Your task to perform on an android device: What's on my calendar tomorrow? Image 0: 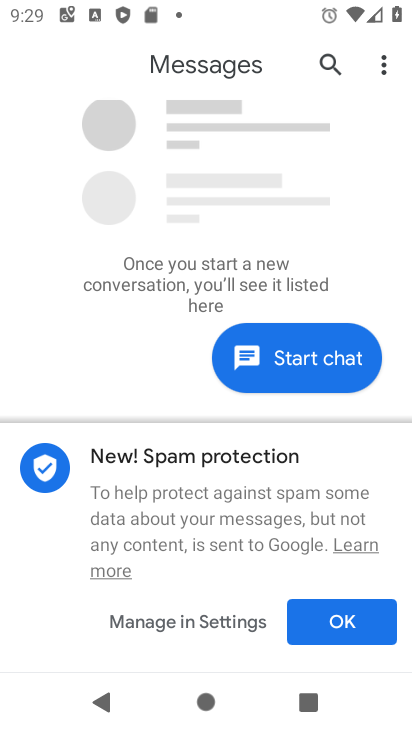
Step 0: press back button
Your task to perform on an android device: What's on my calendar tomorrow? Image 1: 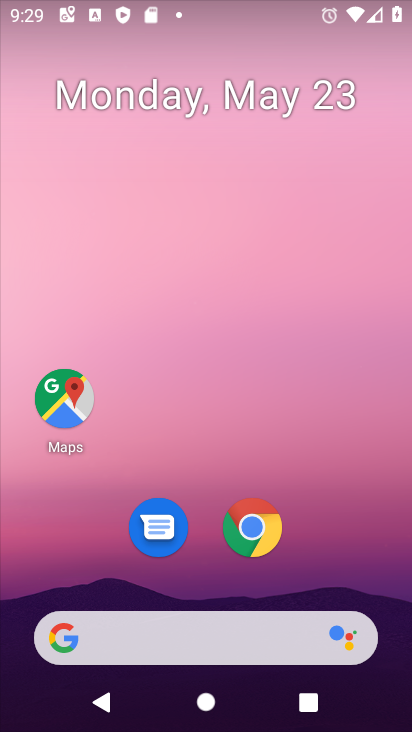
Step 1: drag from (354, 523) to (314, 25)
Your task to perform on an android device: What's on my calendar tomorrow? Image 2: 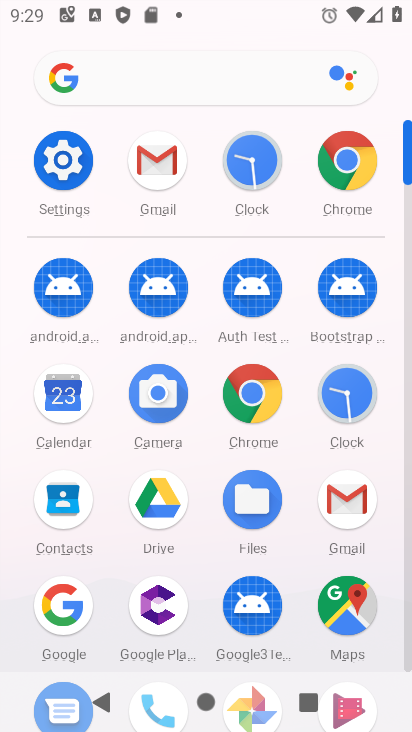
Step 2: drag from (4, 622) to (28, 253)
Your task to perform on an android device: What's on my calendar tomorrow? Image 3: 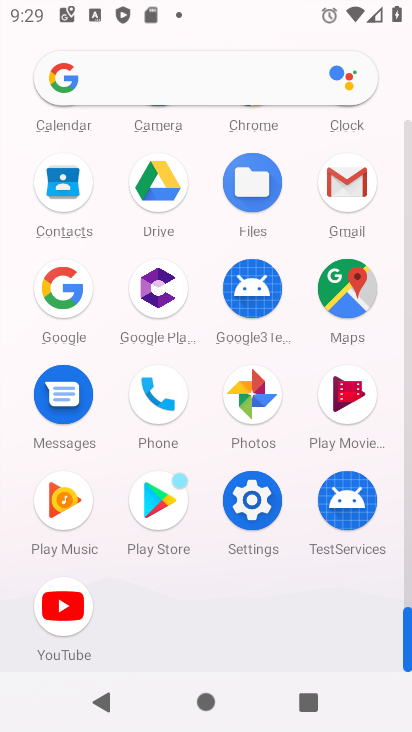
Step 3: drag from (0, 348) to (7, 593)
Your task to perform on an android device: What's on my calendar tomorrow? Image 4: 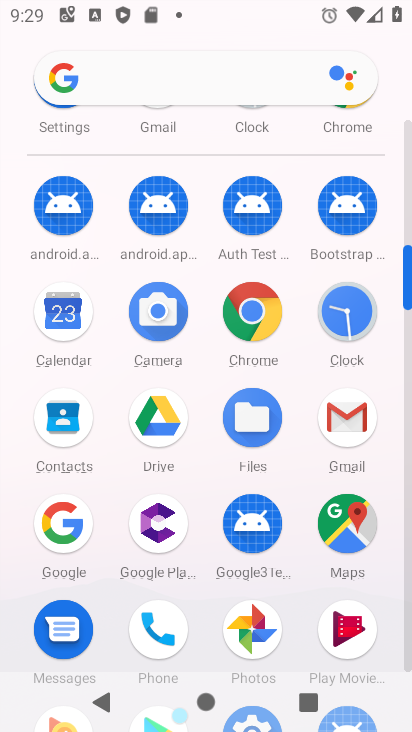
Step 4: click (55, 314)
Your task to perform on an android device: What's on my calendar tomorrow? Image 5: 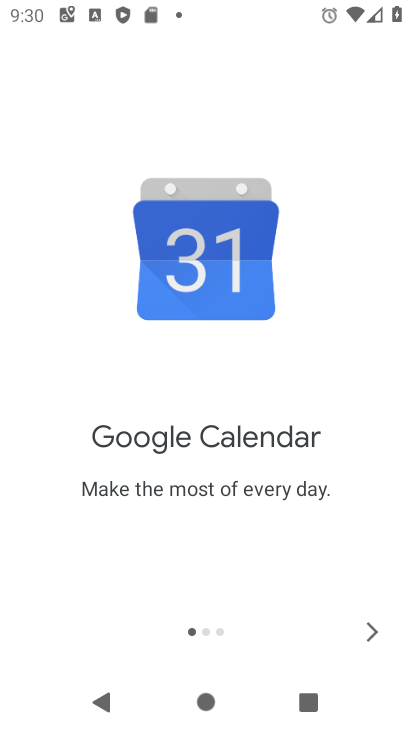
Step 5: click (364, 633)
Your task to perform on an android device: What's on my calendar tomorrow? Image 6: 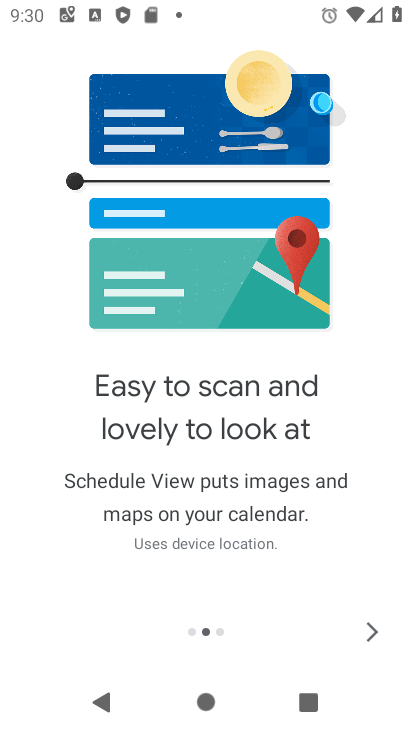
Step 6: click (362, 628)
Your task to perform on an android device: What's on my calendar tomorrow? Image 7: 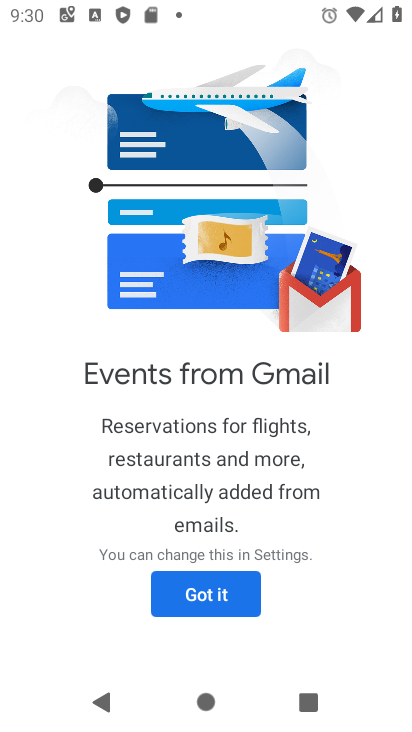
Step 7: click (224, 591)
Your task to perform on an android device: What's on my calendar tomorrow? Image 8: 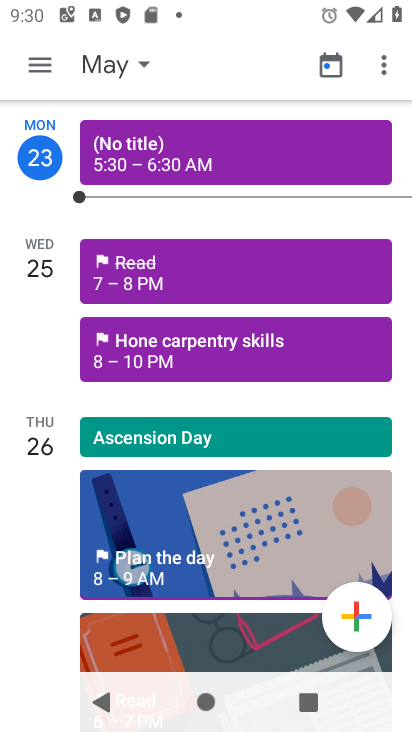
Step 8: click (131, 63)
Your task to perform on an android device: What's on my calendar tomorrow? Image 9: 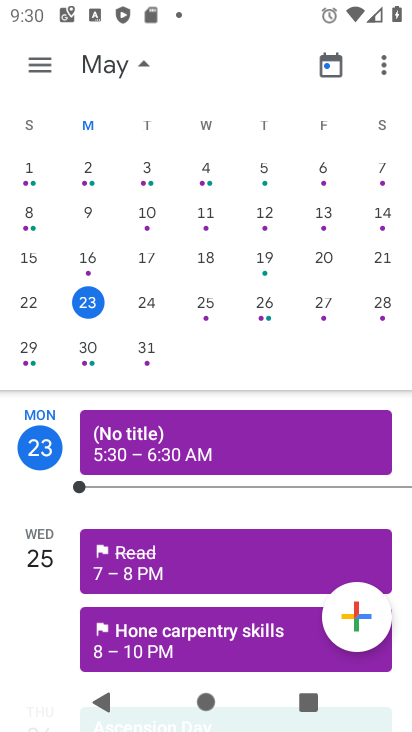
Step 9: click (139, 304)
Your task to perform on an android device: What's on my calendar tomorrow? Image 10: 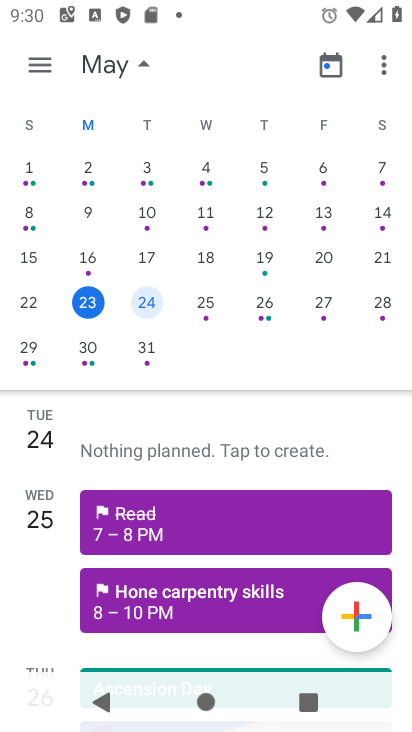
Step 10: click (36, 61)
Your task to perform on an android device: What's on my calendar tomorrow? Image 11: 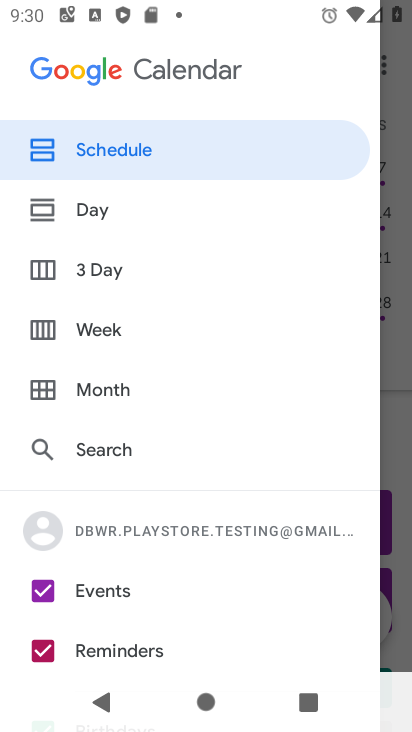
Step 11: click (119, 213)
Your task to perform on an android device: What's on my calendar tomorrow? Image 12: 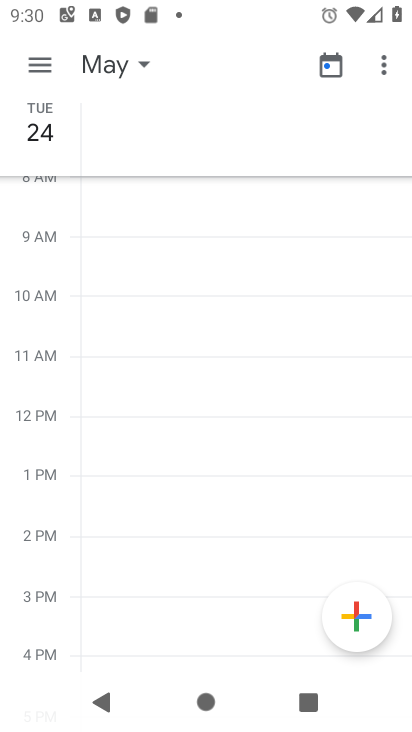
Step 12: task complete